Your task to perform on an android device: Open Chrome and go to settings Image 0: 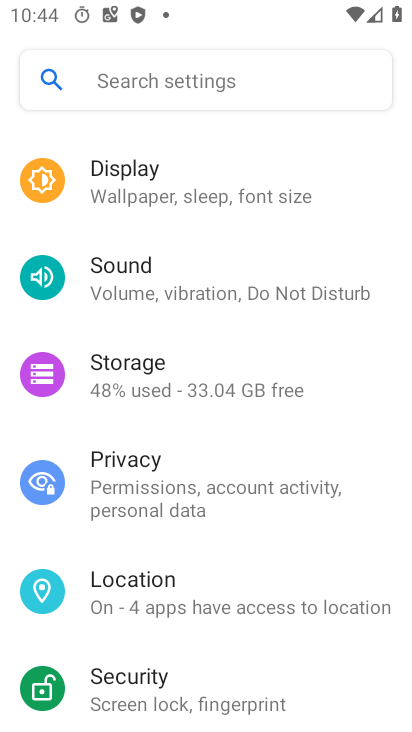
Step 0: press back button
Your task to perform on an android device: Open Chrome and go to settings Image 1: 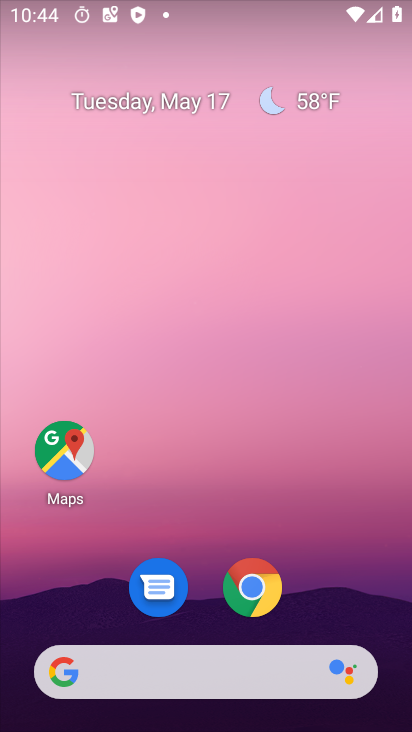
Step 1: click (254, 587)
Your task to perform on an android device: Open Chrome and go to settings Image 2: 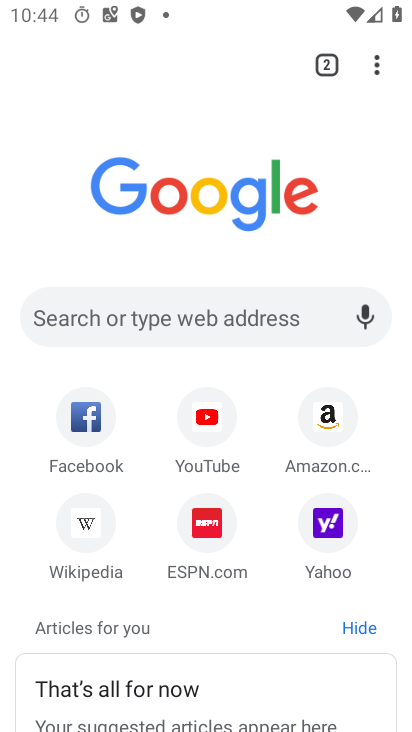
Step 2: click (376, 68)
Your task to perform on an android device: Open Chrome and go to settings Image 3: 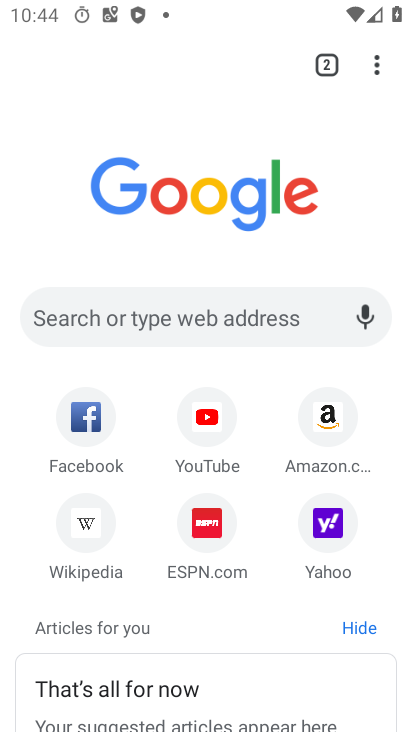
Step 3: click (376, 68)
Your task to perform on an android device: Open Chrome and go to settings Image 4: 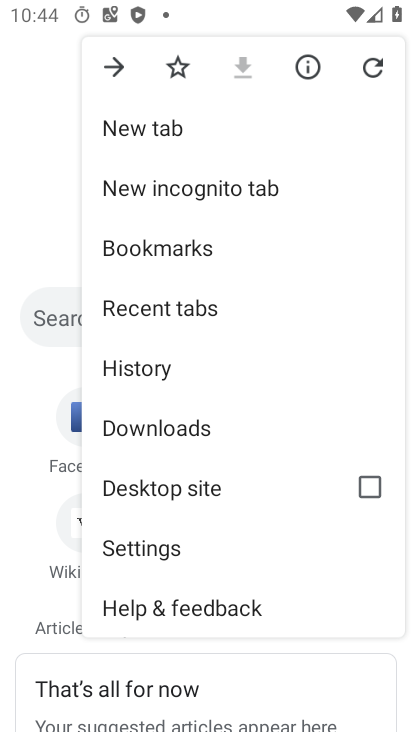
Step 4: click (153, 543)
Your task to perform on an android device: Open Chrome and go to settings Image 5: 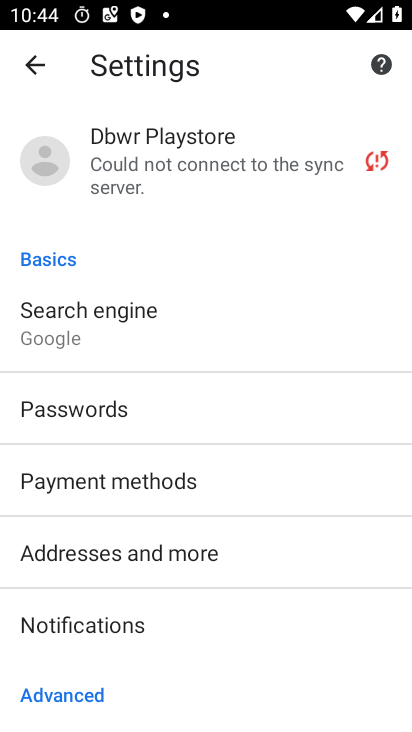
Step 5: task complete